Your task to perform on an android device: refresh tabs in the chrome app Image 0: 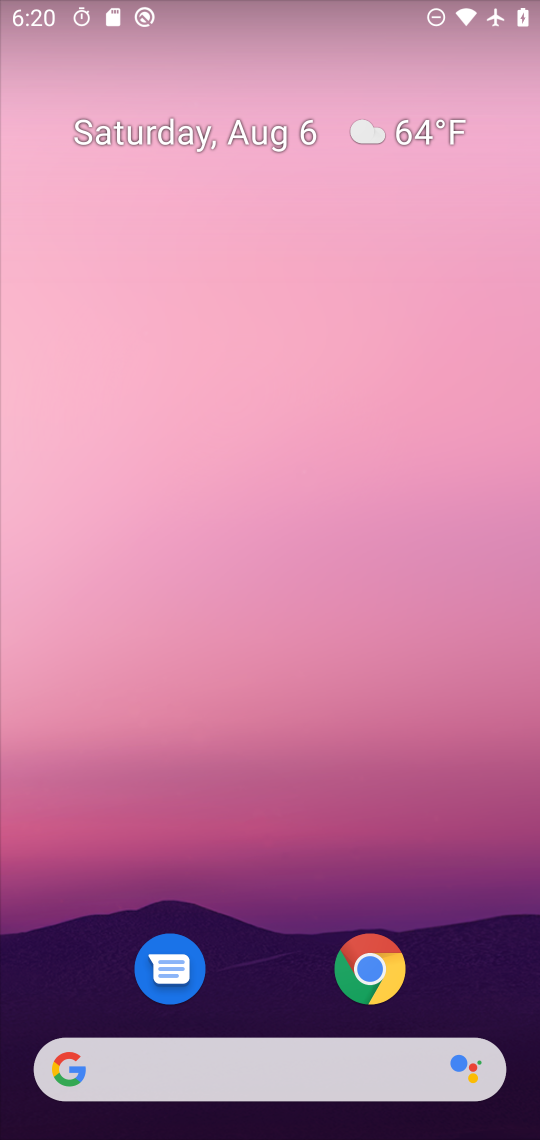
Step 0: press home button
Your task to perform on an android device: refresh tabs in the chrome app Image 1: 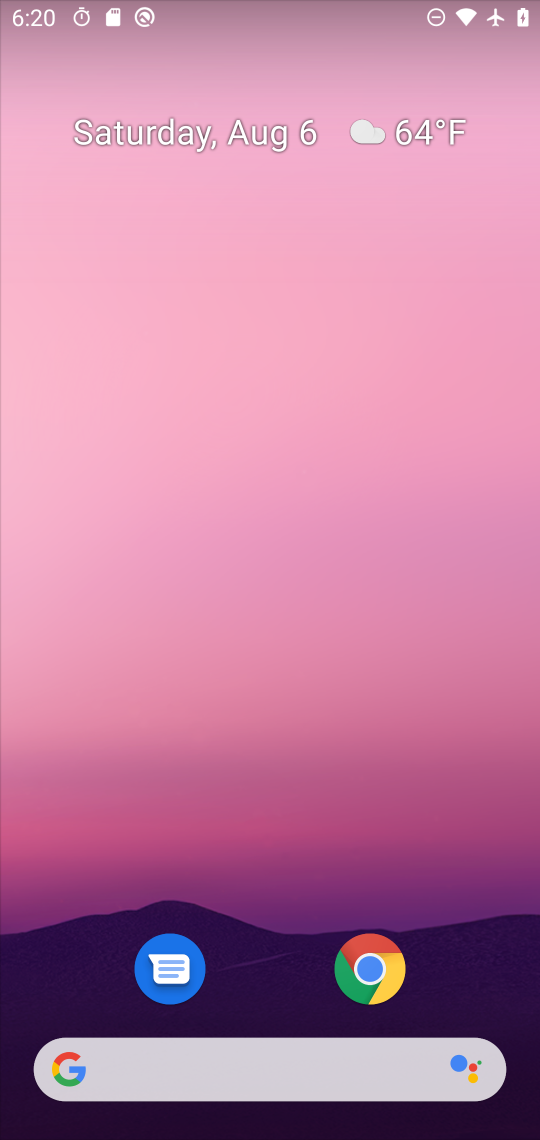
Step 1: click (379, 981)
Your task to perform on an android device: refresh tabs in the chrome app Image 2: 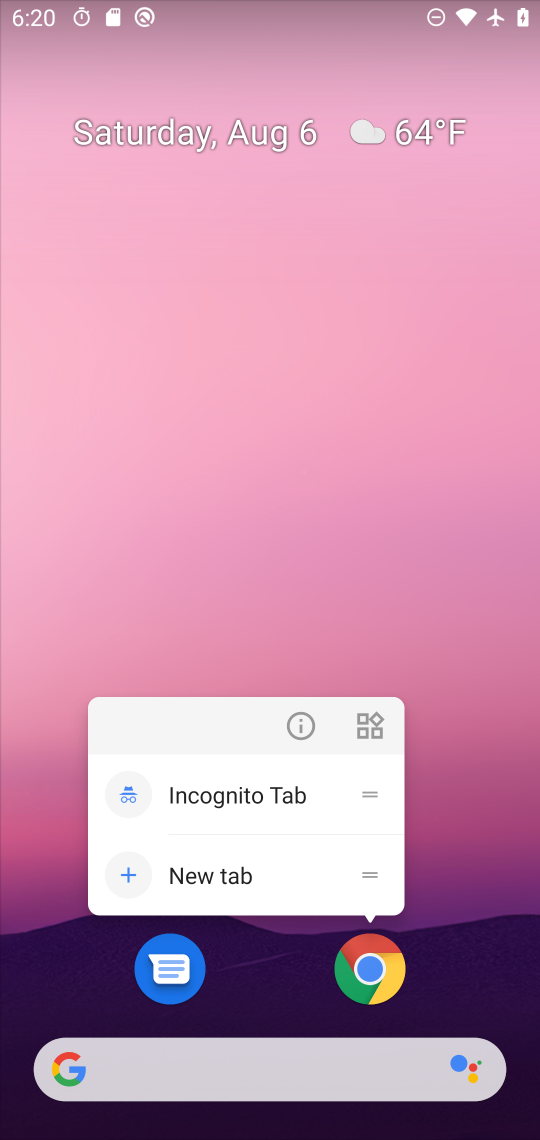
Step 2: click (381, 977)
Your task to perform on an android device: refresh tabs in the chrome app Image 3: 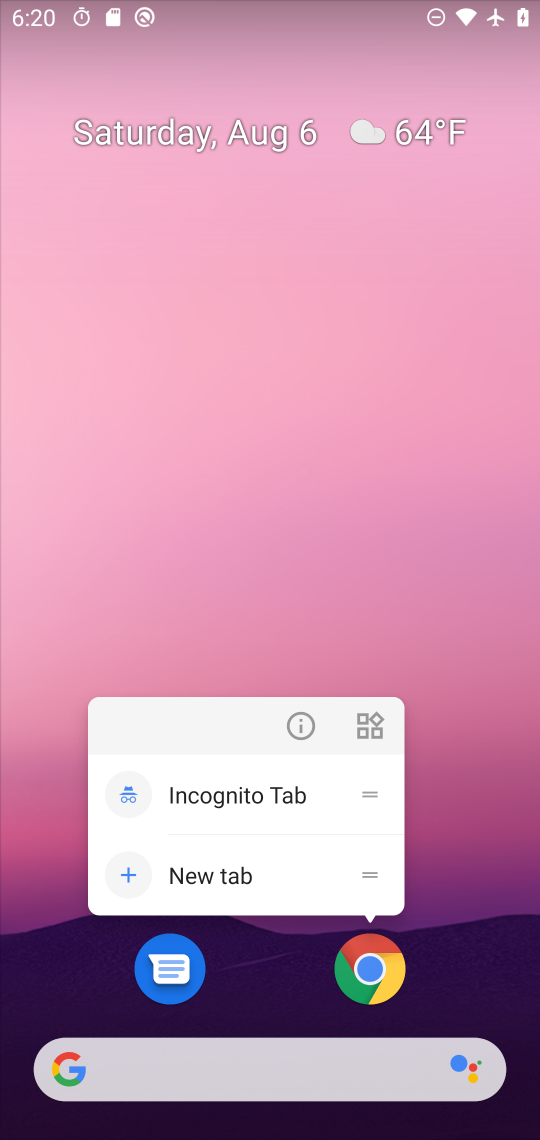
Step 3: click (348, 972)
Your task to perform on an android device: refresh tabs in the chrome app Image 4: 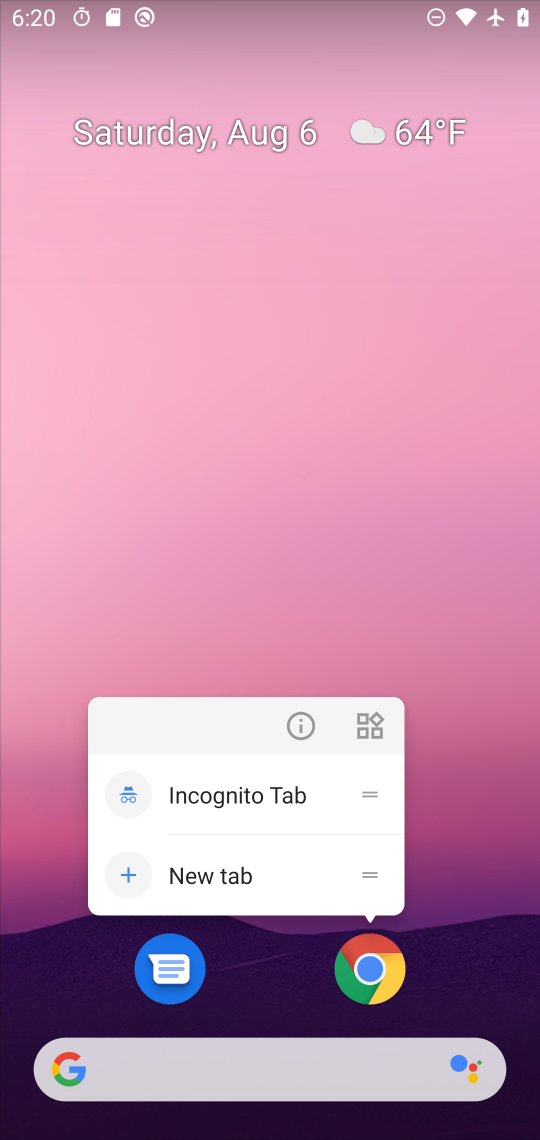
Step 4: click (364, 960)
Your task to perform on an android device: refresh tabs in the chrome app Image 5: 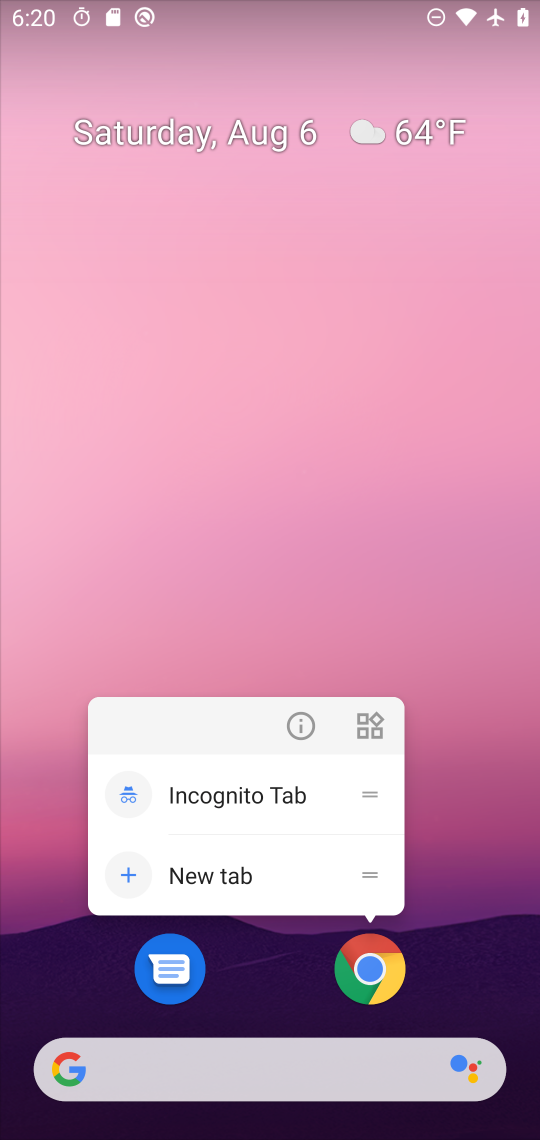
Step 5: click (382, 977)
Your task to perform on an android device: refresh tabs in the chrome app Image 6: 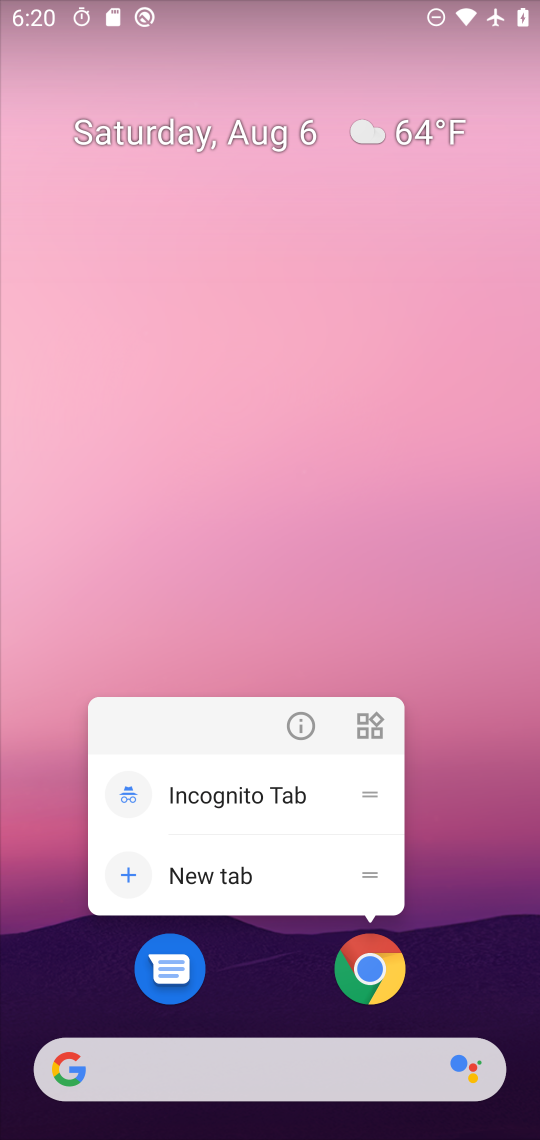
Step 6: click (383, 974)
Your task to perform on an android device: refresh tabs in the chrome app Image 7: 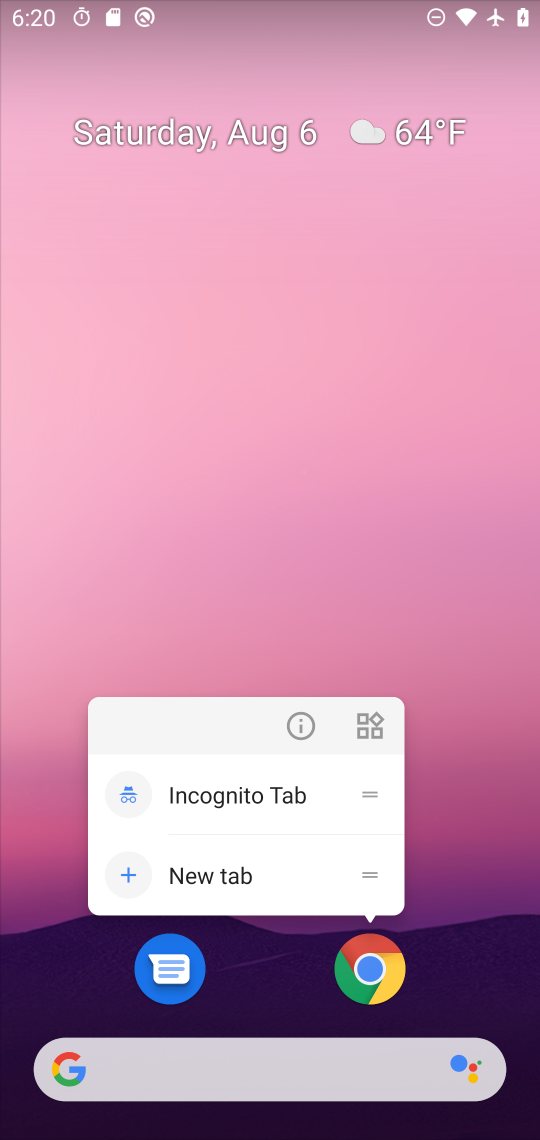
Step 7: click (478, 968)
Your task to perform on an android device: refresh tabs in the chrome app Image 8: 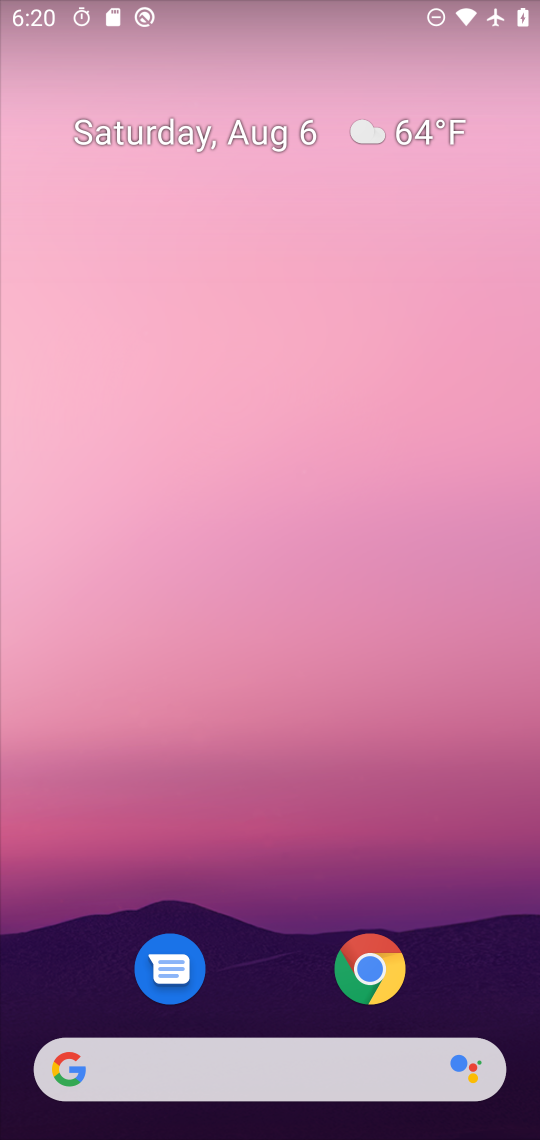
Step 8: drag from (289, 988) to (285, 268)
Your task to perform on an android device: refresh tabs in the chrome app Image 9: 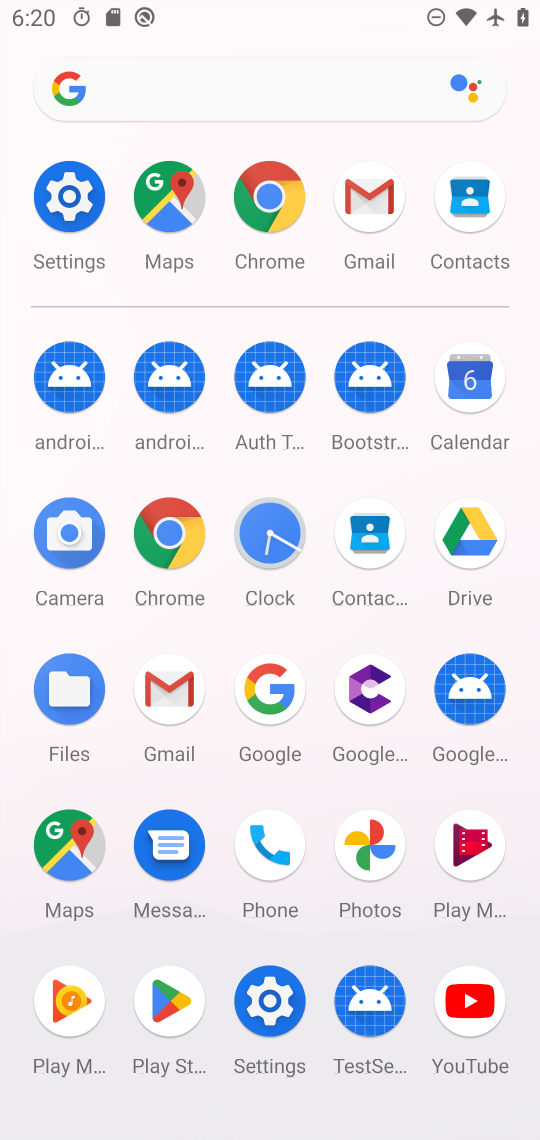
Step 9: click (254, 197)
Your task to perform on an android device: refresh tabs in the chrome app Image 10: 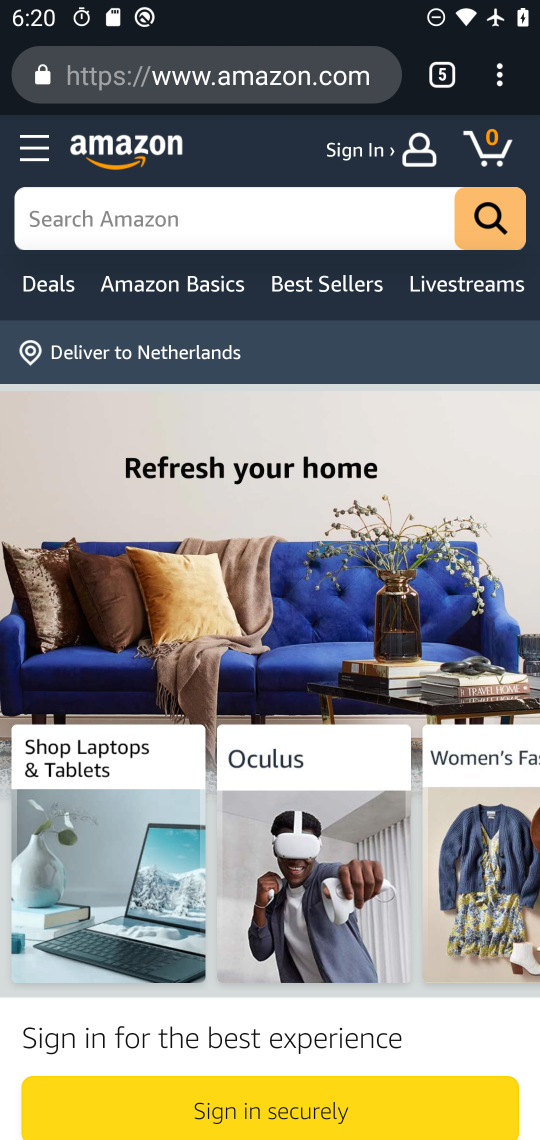
Step 10: click (449, 68)
Your task to perform on an android device: refresh tabs in the chrome app Image 11: 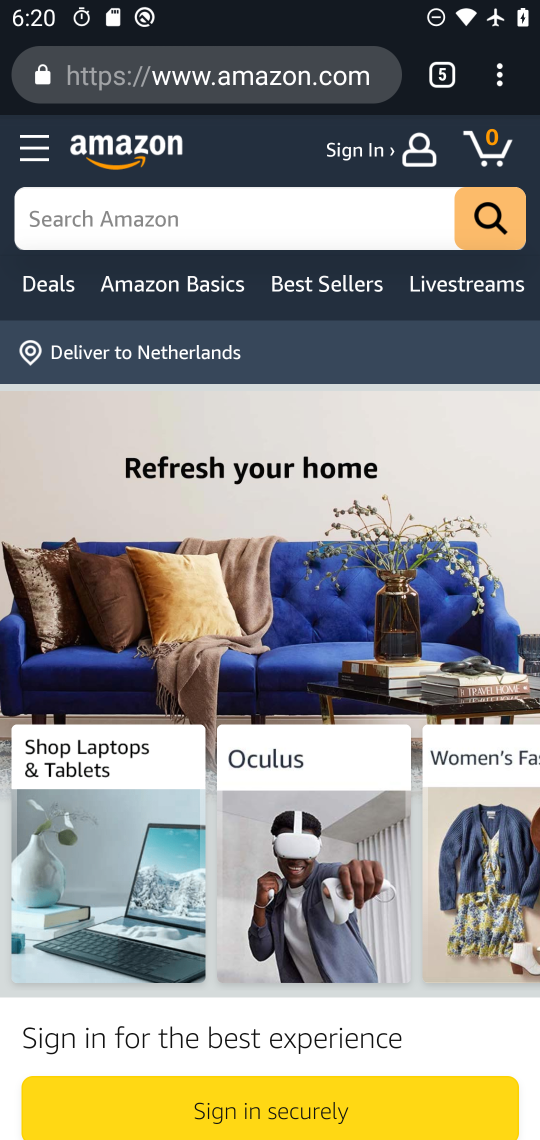
Step 11: click (497, 73)
Your task to perform on an android device: refresh tabs in the chrome app Image 12: 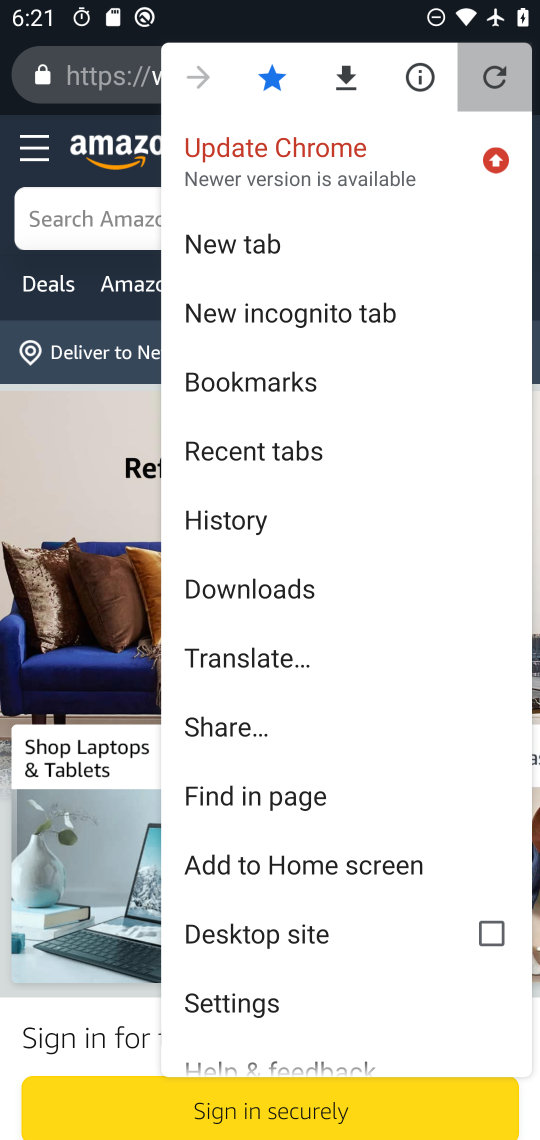
Step 12: click (497, 73)
Your task to perform on an android device: refresh tabs in the chrome app Image 13: 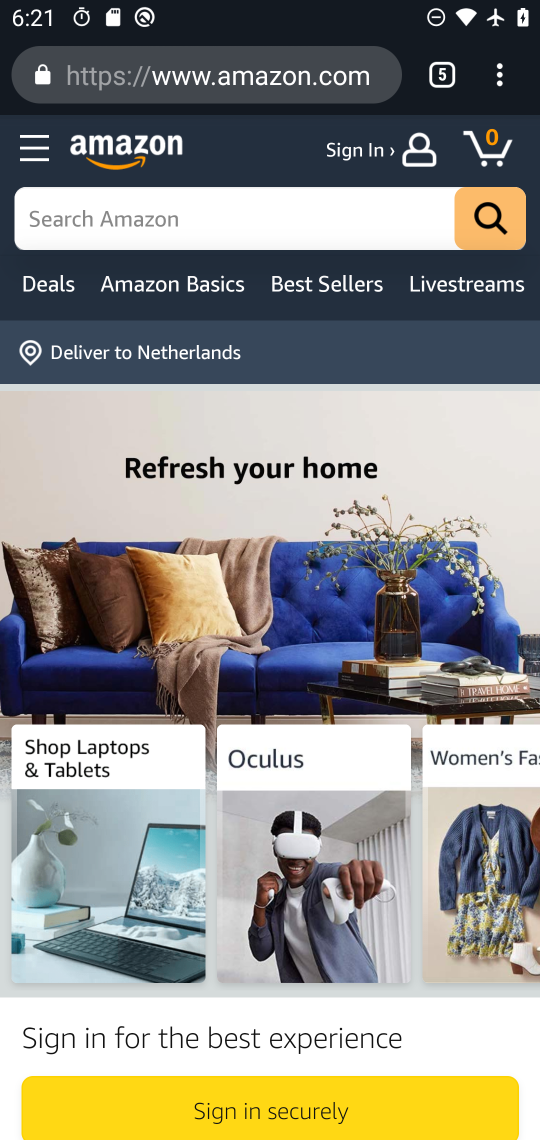
Step 13: task complete